Your task to perform on an android device: Open network settings Image 0: 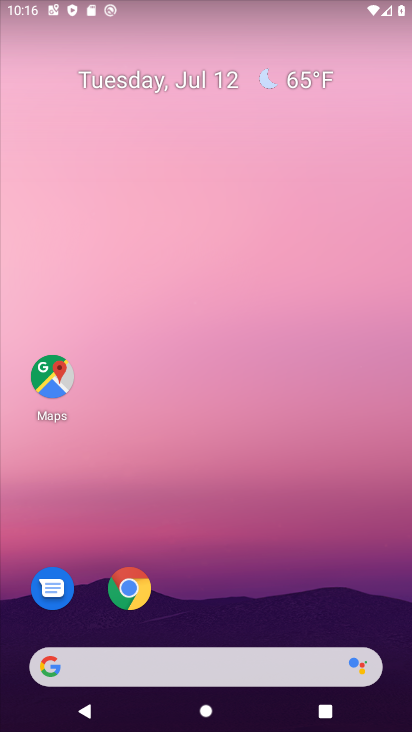
Step 0: drag from (117, 104) to (134, 57)
Your task to perform on an android device: Open network settings Image 1: 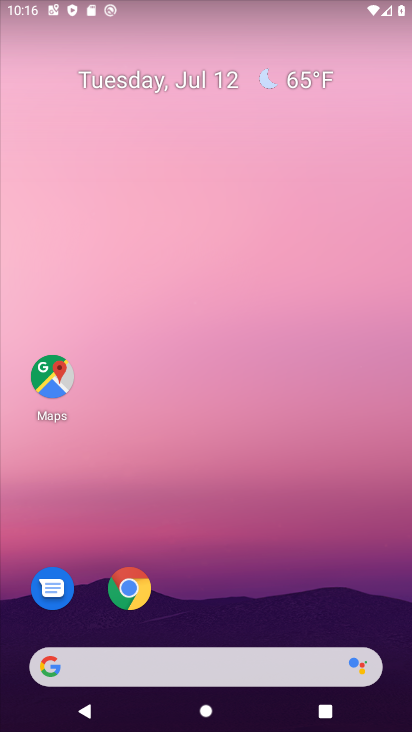
Step 1: task complete